Your task to perform on an android device: manage bookmarks in the chrome app Image 0: 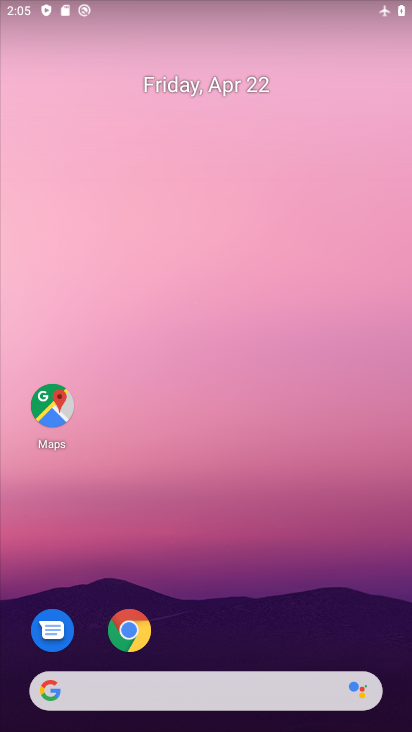
Step 0: drag from (285, 442) to (266, 128)
Your task to perform on an android device: manage bookmarks in the chrome app Image 1: 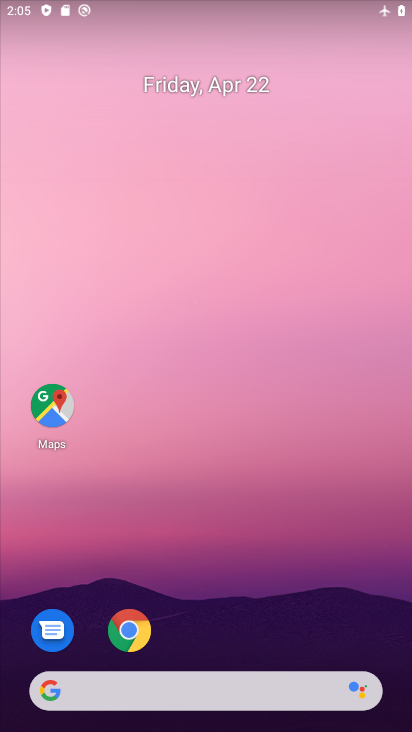
Step 1: drag from (326, 629) to (296, 211)
Your task to perform on an android device: manage bookmarks in the chrome app Image 2: 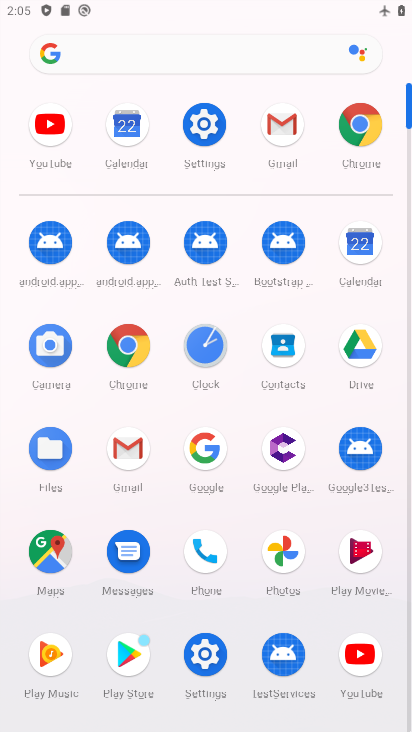
Step 2: click (355, 129)
Your task to perform on an android device: manage bookmarks in the chrome app Image 3: 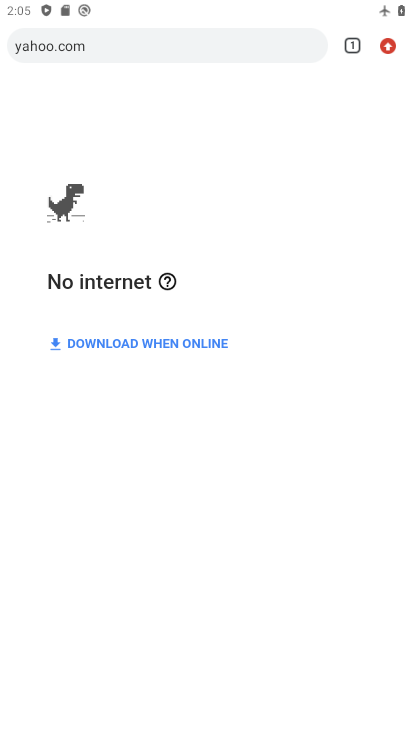
Step 3: task complete